Your task to perform on an android device: Open maps Image 0: 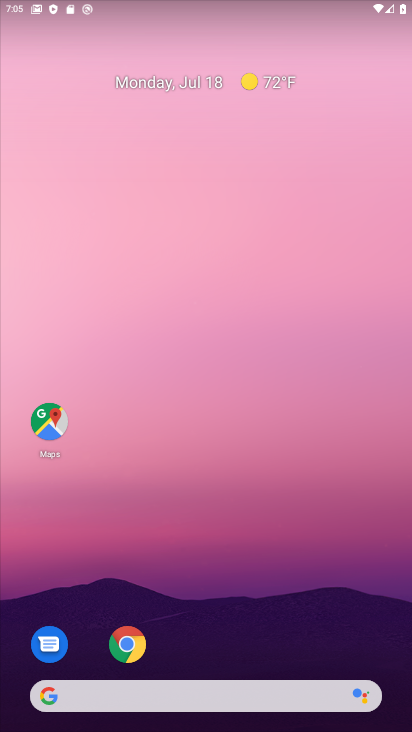
Step 0: drag from (328, 631) to (233, 0)
Your task to perform on an android device: Open maps Image 1: 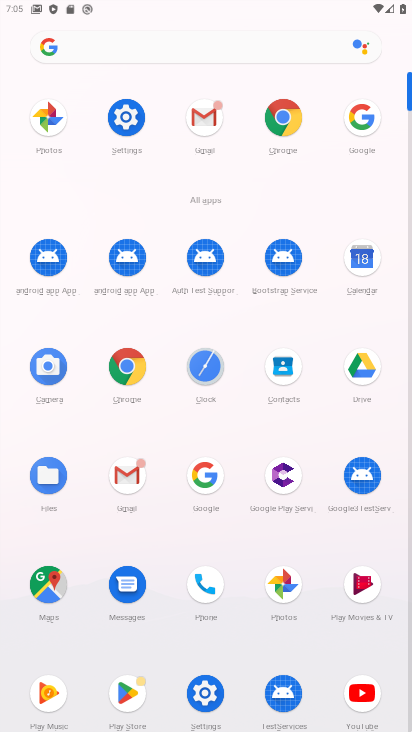
Step 1: click (51, 586)
Your task to perform on an android device: Open maps Image 2: 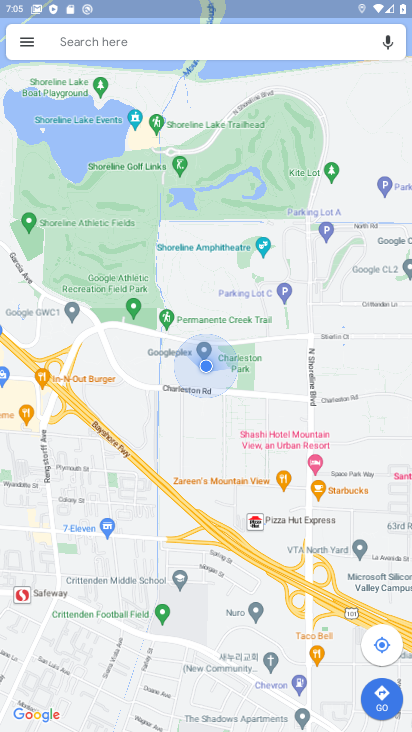
Step 2: task complete